Your task to perform on an android device: turn on notifications settings in the gmail app Image 0: 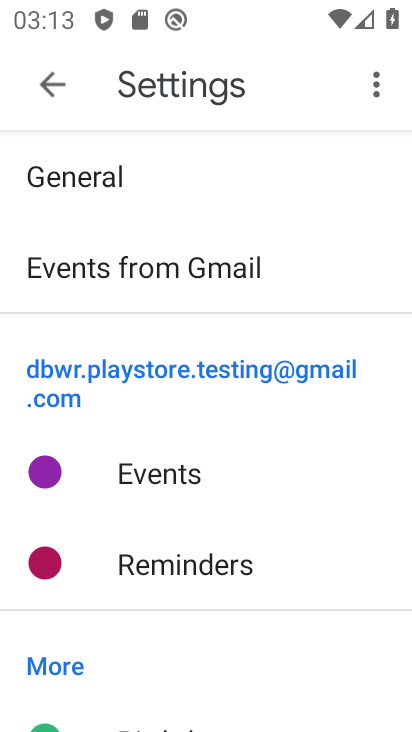
Step 0: press back button
Your task to perform on an android device: turn on notifications settings in the gmail app Image 1: 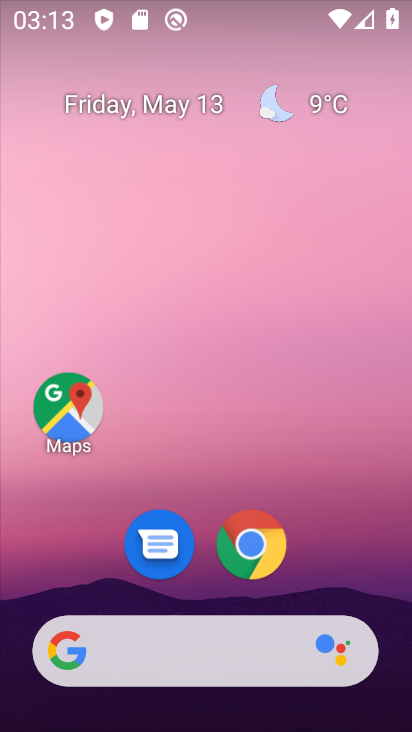
Step 1: drag from (315, 516) to (282, 135)
Your task to perform on an android device: turn on notifications settings in the gmail app Image 2: 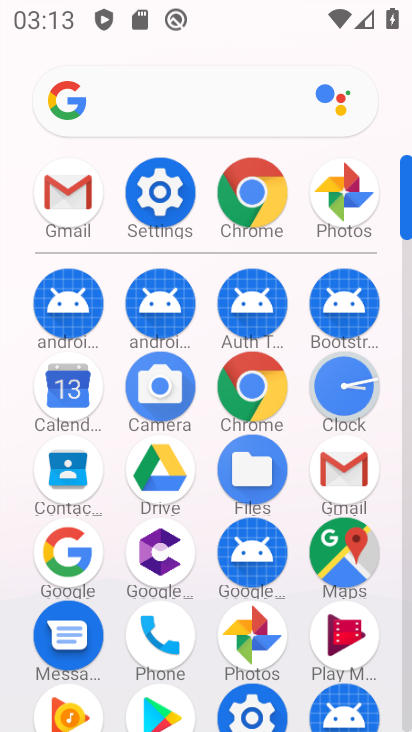
Step 2: drag from (20, 577) to (29, 317)
Your task to perform on an android device: turn on notifications settings in the gmail app Image 3: 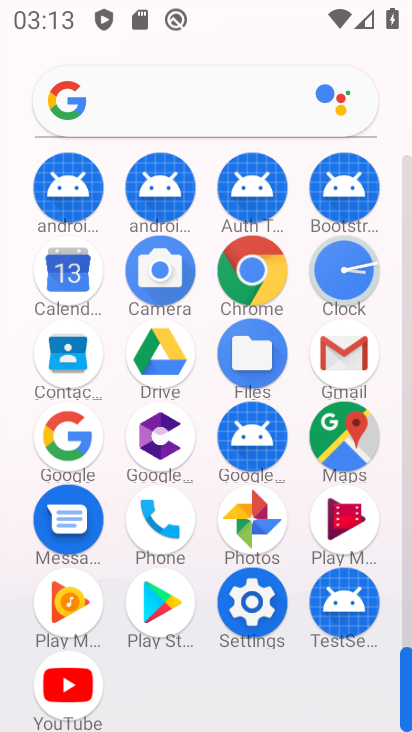
Step 3: click (347, 348)
Your task to perform on an android device: turn on notifications settings in the gmail app Image 4: 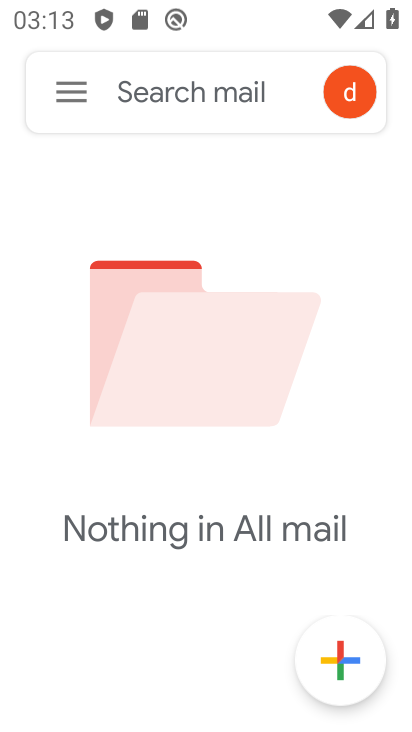
Step 4: click (74, 86)
Your task to perform on an android device: turn on notifications settings in the gmail app Image 5: 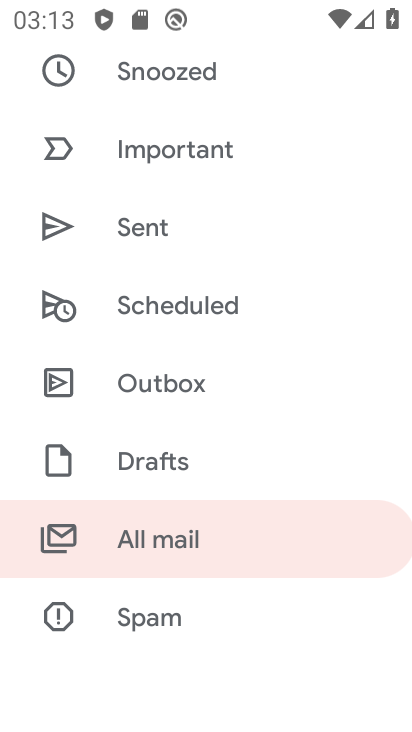
Step 5: drag from (268, 193) to (268, 571)
Your task to perform on an android device: turn on notifications settings in the gmail app Image 6: 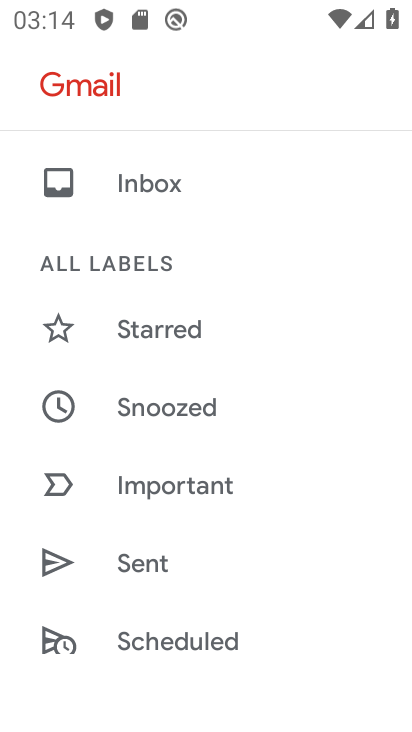
Step 6: drag from (262, 571) to (258, 132)
Your task to perform on an android device: turn on notifications settings in the gmail app Image 7: 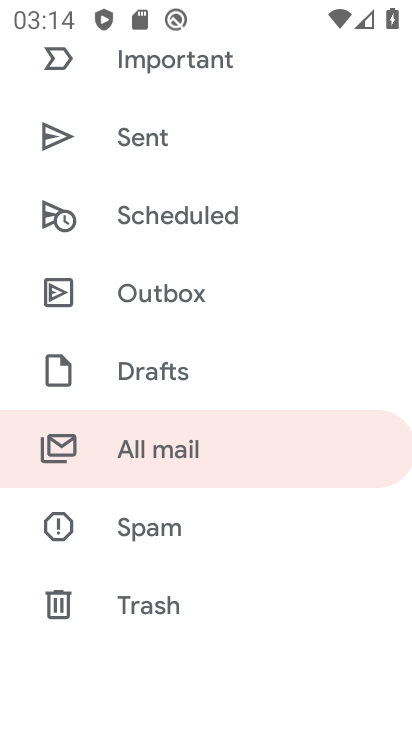
Step 7: drag from (260, 577) to (288, 112)
Your task to perform on an android device: turn on notifications settings in the gmail app Image 8: 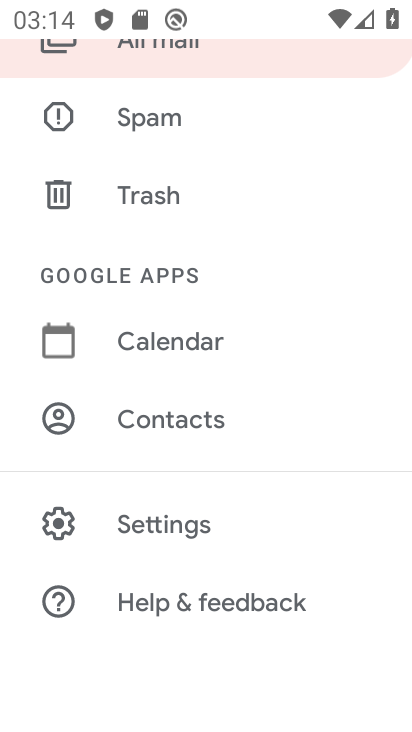
Step 8: click (172, 516)
Your task to perform on an android device: turn on notifications settings in the gmail app Image 9: 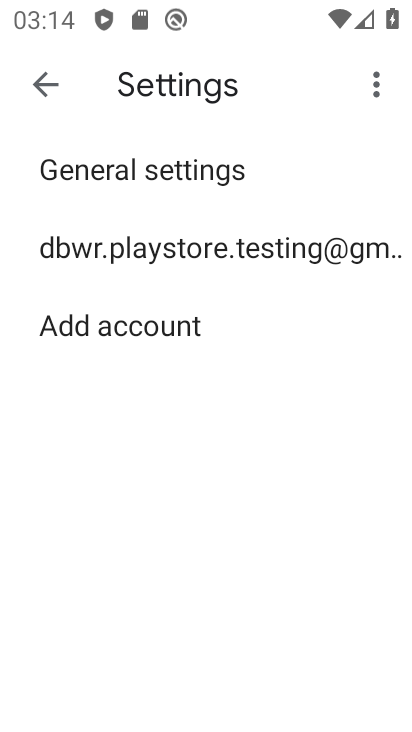
Step 9: click (204, 241)
Your task to perform on an android device: turn on notifications settings in the gmail app Image 10: 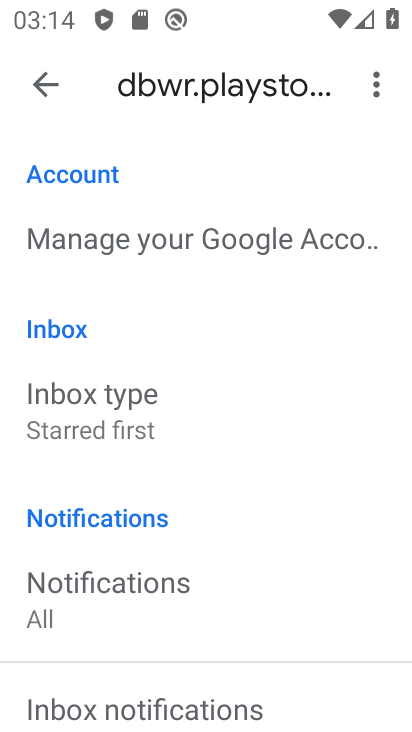
Step 10: drag from (190, 548) to (244, 167)
Your task to perform on an android device: turn on notifications settings in the gmail app Image 11: 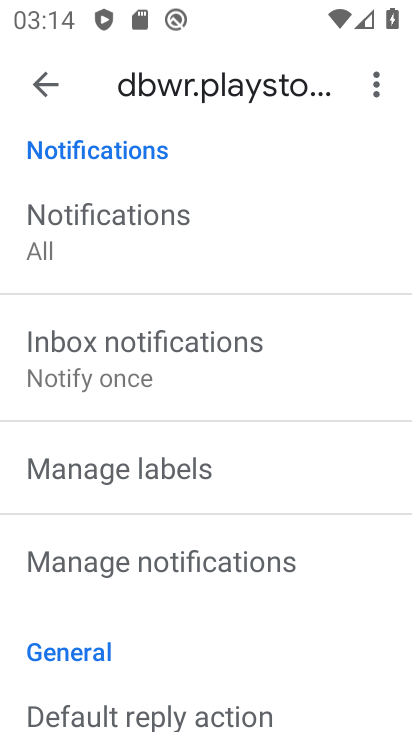
Step 11: click (175, 562)
Your task to perform on an android device: turn on notifications settings in the gmail app Image 12: 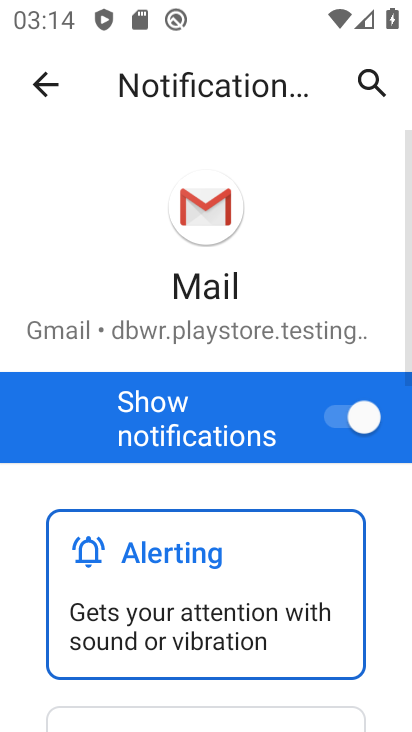
Step 12: drag from (227, 513) to (271, 197)
Your task to perform on an android device: turn on notifications settings in the gmail app Image 13: 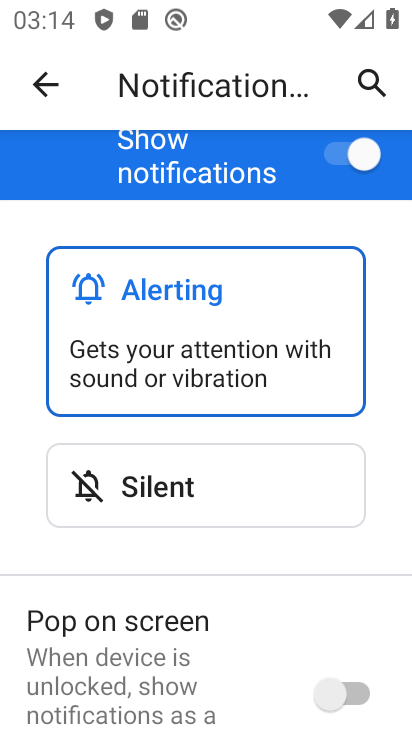
Step 13: drag from (243, 536) to (245, 160)
Your task to perform on an android device: turn on notifications settings in the gmail app Image 14: 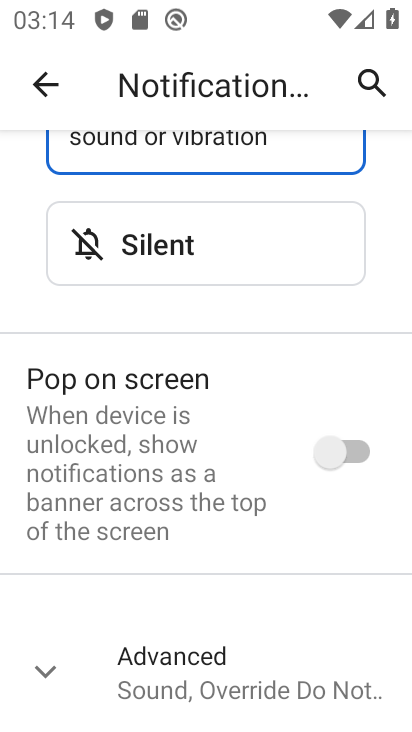
Step 14: click (108, 663)
Your task to perform on an android device: turn on notifications settings in the gmail app Image 15: 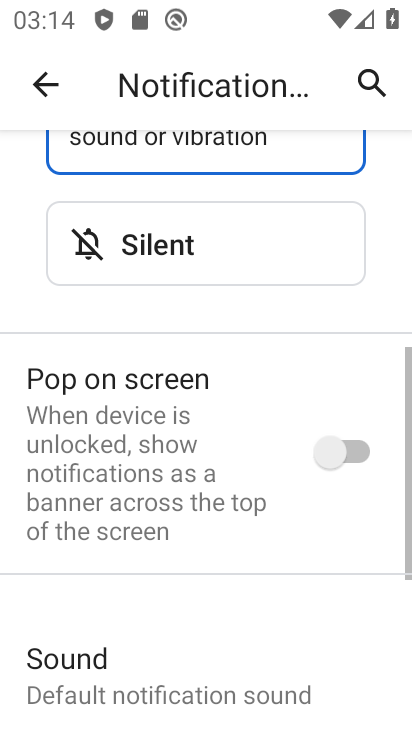
Step 15: task complete